Your task to perform on an android device: turn on the 24-hour format for clock Image 0: 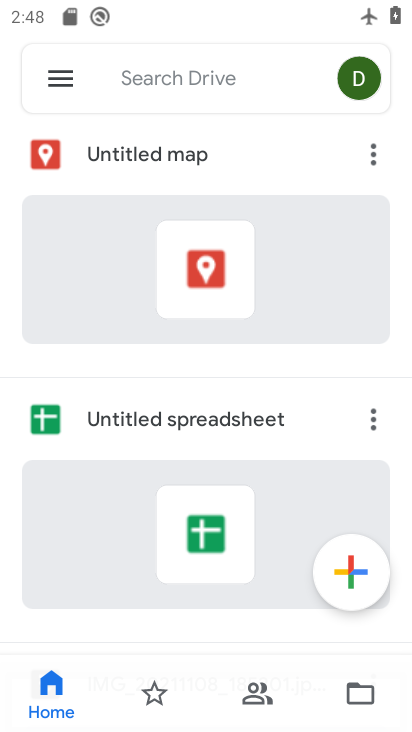
Step 0: press home button
Your task to perform on an android device: turn on the 24-hour format for clock Image 1: 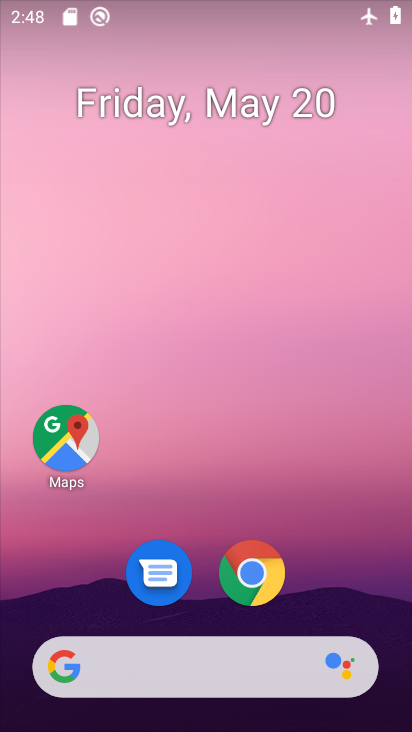
Step 1: drag from (205, 622) to (228, 210)
Your task to perform on an android device: turn on the 24-hour format for clock Image 2: 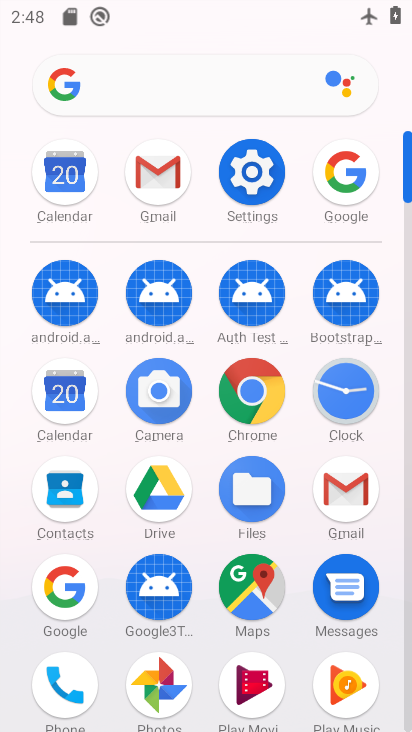
Step 2: click (325, 414)
Your task to perform on an android device: turn on the 24-hour format for clock Image 3: 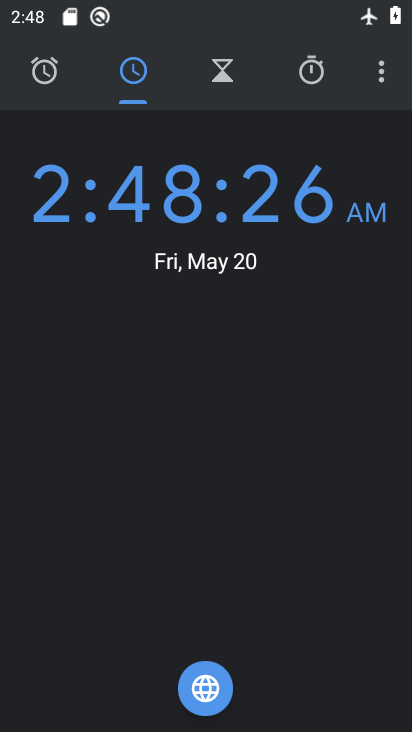
Step 3: click (375, 88)
Your task to perform on an android device: turn on the 24-hour format for clock Image 4: 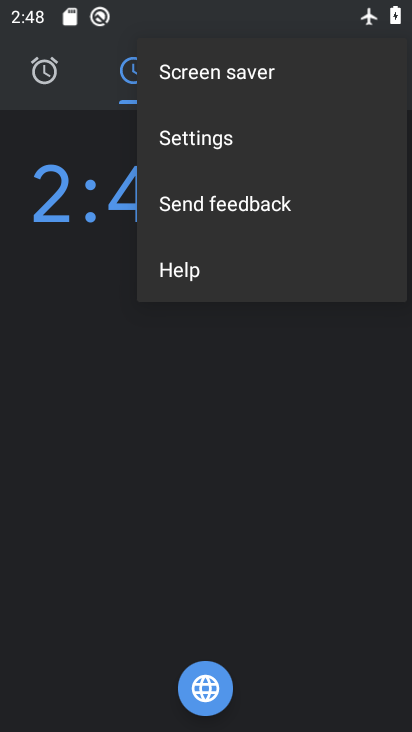
Step 4: click (251, 130)
Your task to perform on an android device: turn on the 24-hour format for clock Image 5: 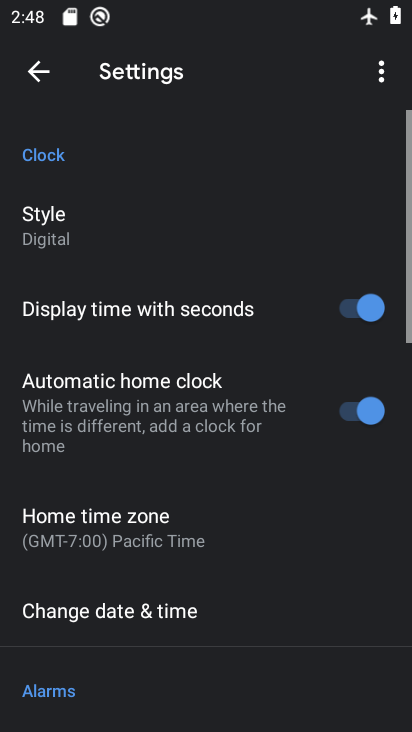
Step 5: drag from (225, 561) to (223, 372)
Your task to perform on an android device: turn on the 24-hour format for clock Image 6: 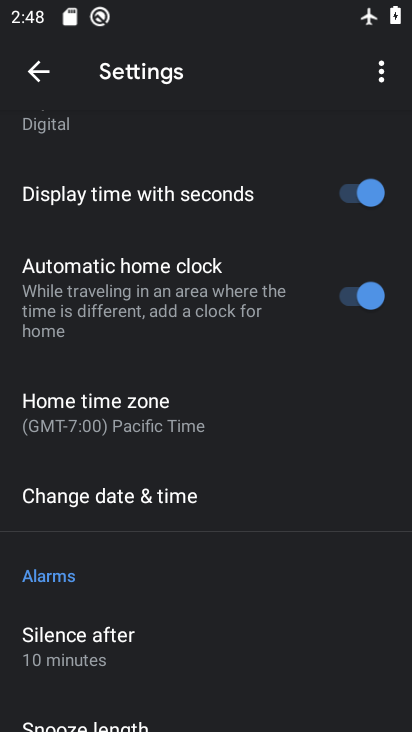
Step 6: click (176, 504)
Your task to perform on an android device: turn on the 24-hour format for clock Image 7: 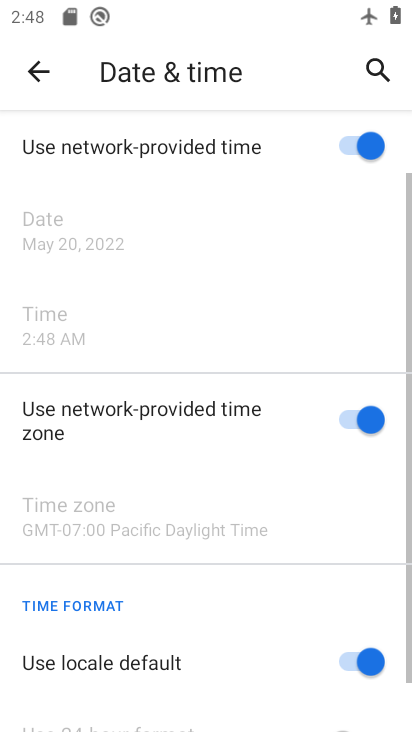
Step 7: drag from (264, 600) to (294, 284)
Your task to perform on an android device: turn on the 24-hour format for clock Image 8: 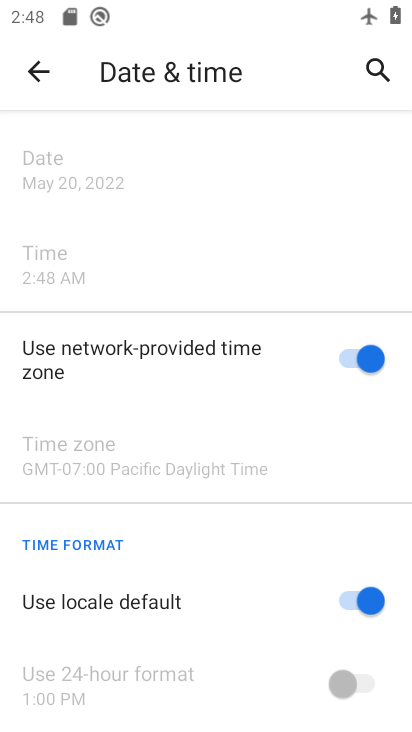
Step 8: click (348, 607)
Your task to perform on an android device: turn on the 24-hour format for clock Image 9: 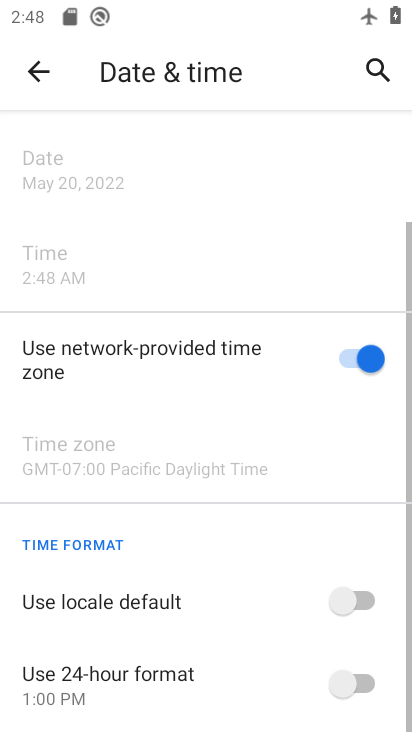
Step 9: click (365, 670)
Your task to perform on an android device: turn on the 24-hour format for clock Image 10: 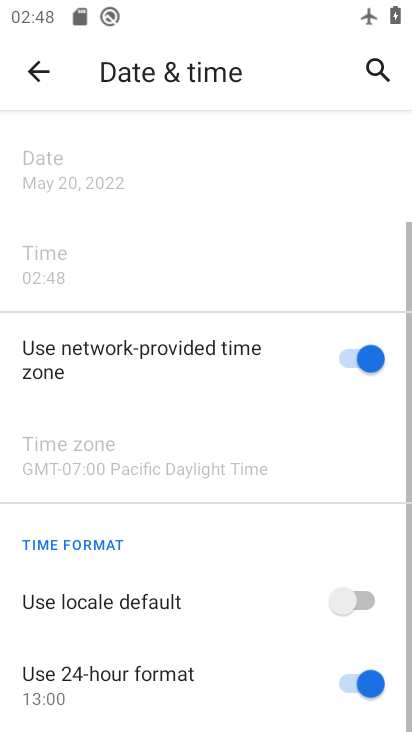
Step 10: task complete